Your task to perform on an android device: Open the calendar app, open the side menu, and click the "Day" option Image 0: 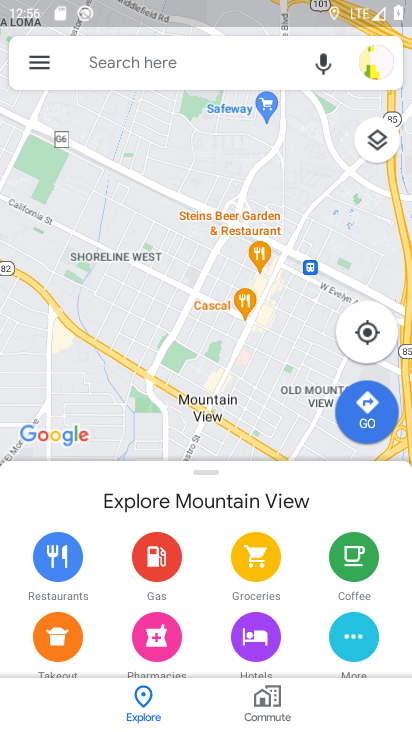
Step 0: press home button
Your task to perform on an android device: Open the calendar app, open the side menu, and click the "Day" option Image 1: 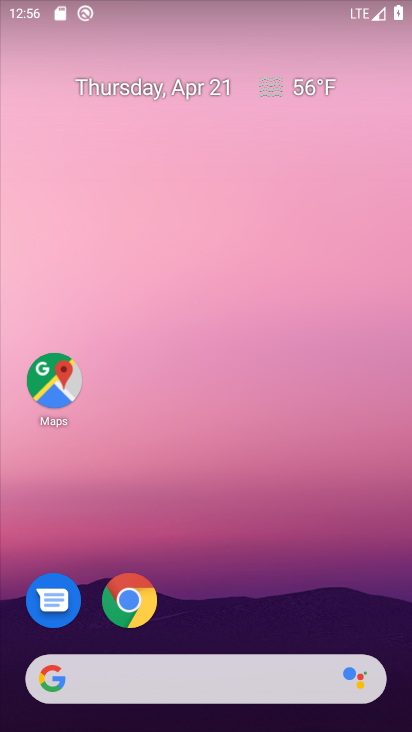
Step 1: drag from (187, 564) to (285, 47)
Your task to perform on an android device: Open the calendar app, open the side menu, and click the "Day" option Image 2: 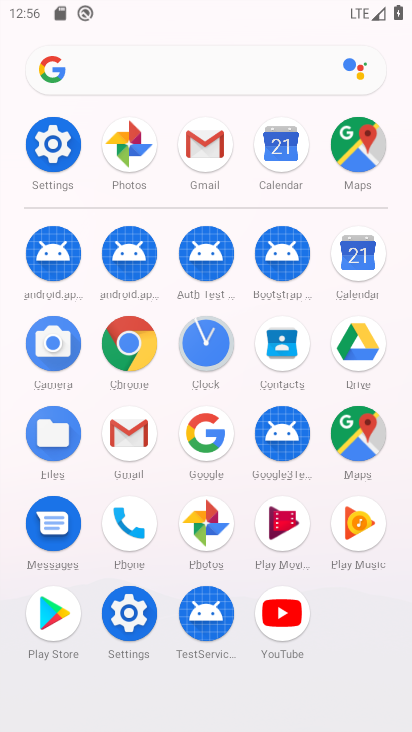
Step 2: click (274, 147)
Your task to perform on an android device: Open the calendar app, open the side menu, and click the "Day" option Image 3: 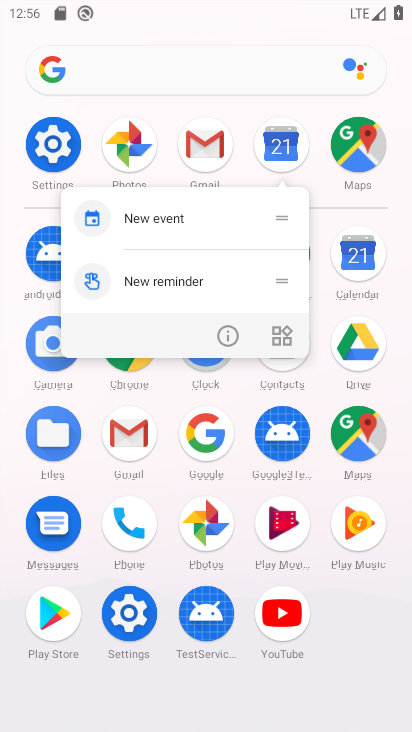
Step 3: click (274, 146)
Your task to perform on an android device: Open the calendar app, open the side menu, and click the "Day" option Image 4: 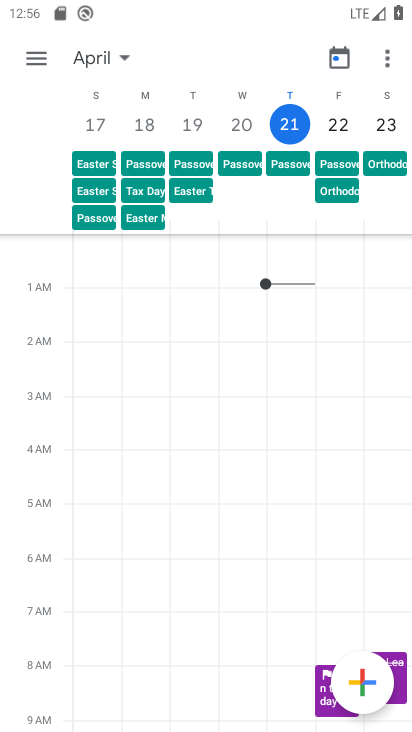
Step 4: click (40, 50)
Your task to perform on an android device: Open the calendar app, open the side menu, and click the "Day" option Image 5: 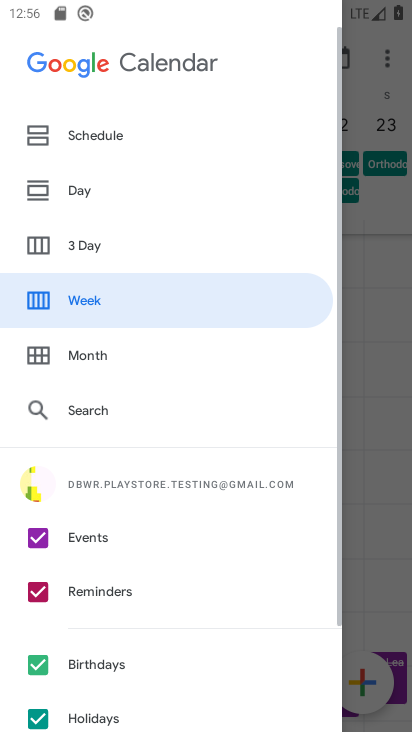
Step 5: click (47, 183)
Your task to perform on an android device: Open the calendar app, open the side menu, and click the "Day" option Image 6: 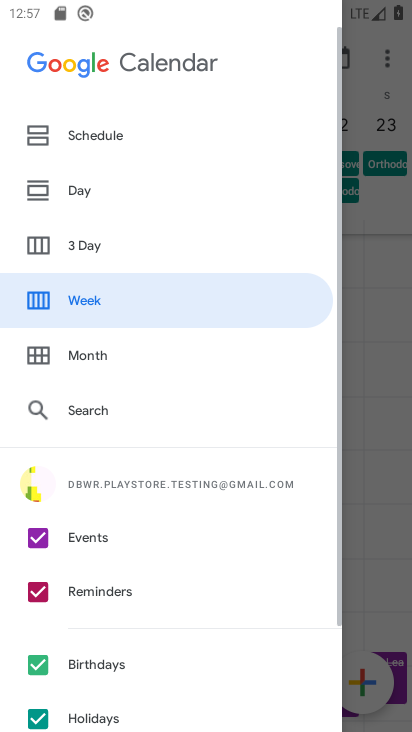
Step 6: click (34, 188)
Your task to perform on an android device: Open the calendar app, open the side menu, and click the "Day" option Image 7: 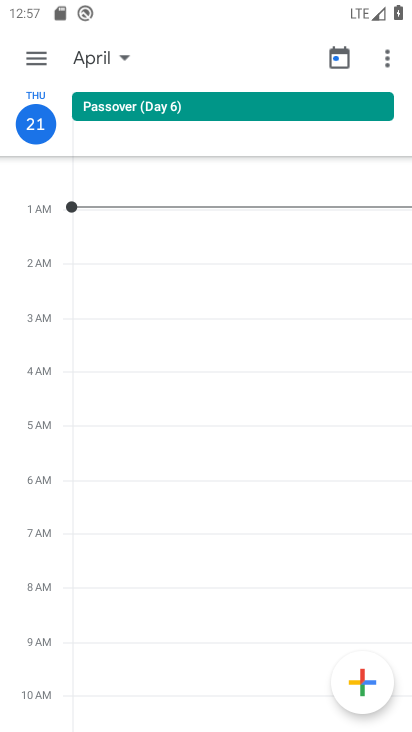
Step 7: task complete